Your task to perform on an android device: toggle sleep mode Image 0: 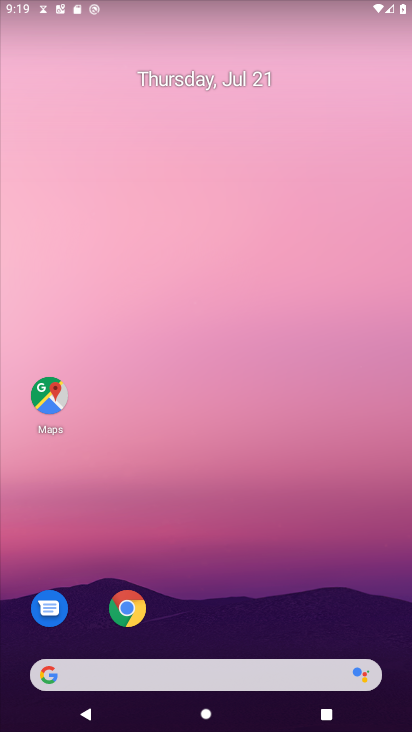
Step 0: drag from (172, 590) to (116, 57)
Your task to perform on an android device: toggle sleep mode Image 1: 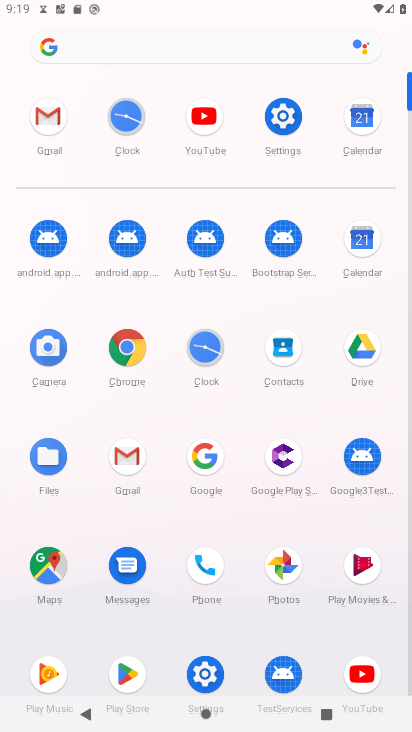
Step 1: click (287, 126)
Your task to perform on an android device: toggle sleep mode Image 2: 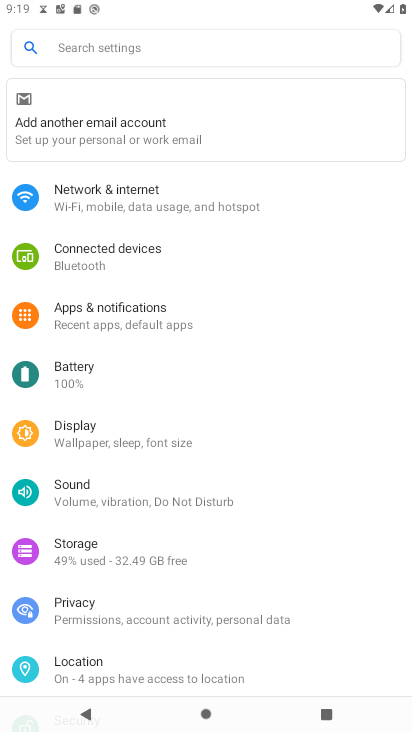
Step 2: task complete